Your task to perform on an android device: Open location settings Image 0: 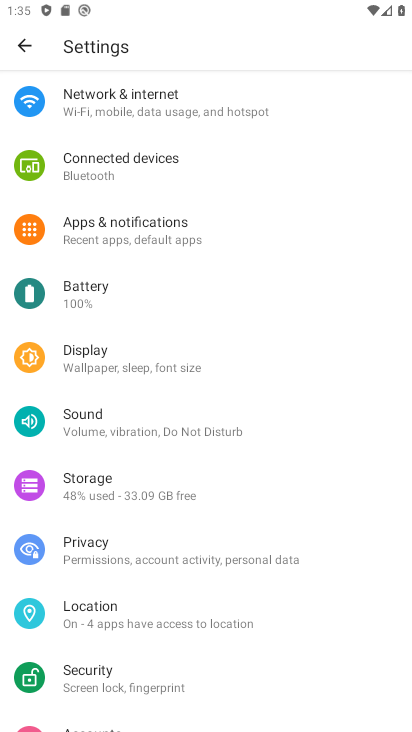
Step 0: click (106, 610)
Your task to perform on an android device: Open location settings Image 1: 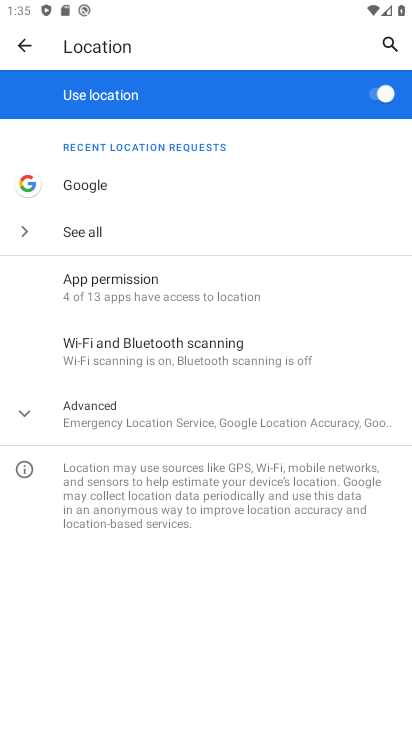
Step 1: task complete